Your task to perform on an android device: find photos in the google photos app Image 0: 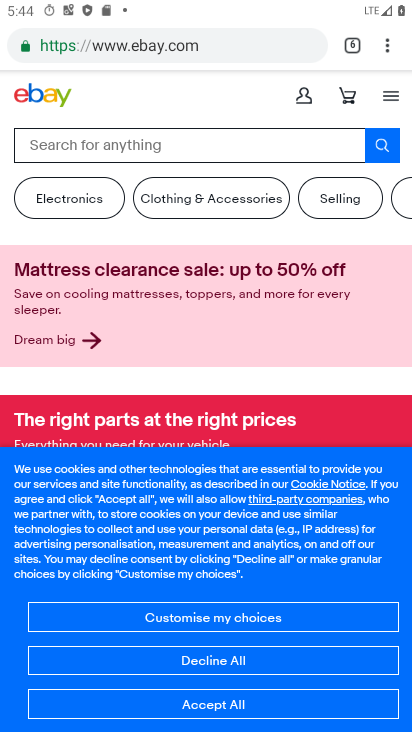
Step 0: press home button
Your task to perform on an android device: find photos in the google photos app Image 1: 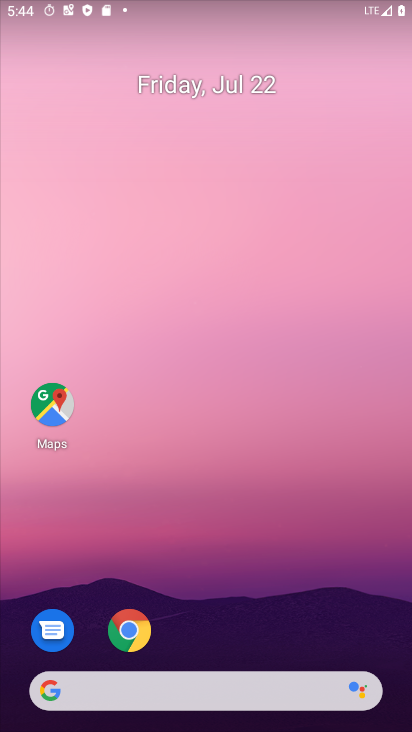
Step 1: drag from (289, 632) to (282, 116)
Your task to perform on an android device: find photos in the google photos app Image 2: 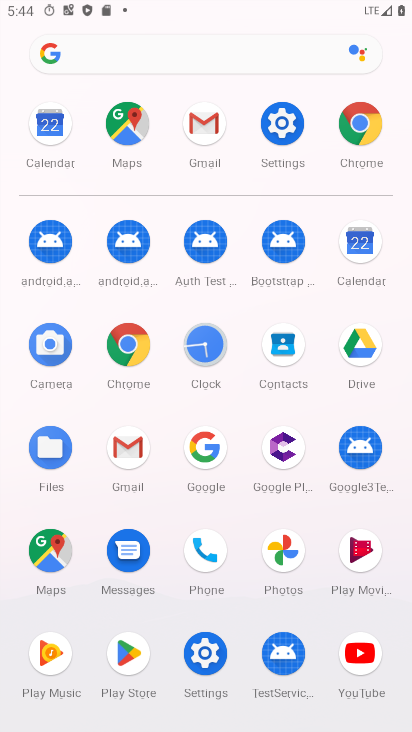
Step 2: click (280, 550)
Your task to perform on an android device: find photos in the google photos app Image 3: 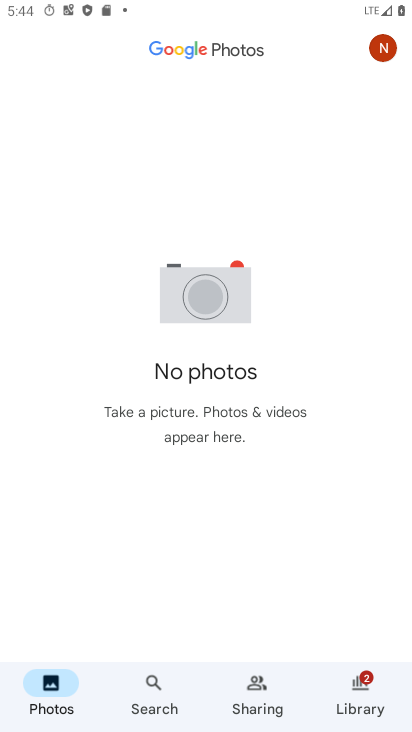
Step 3: task complete